Your task to perform on an android device: turn on improve location accuracy Image 0: 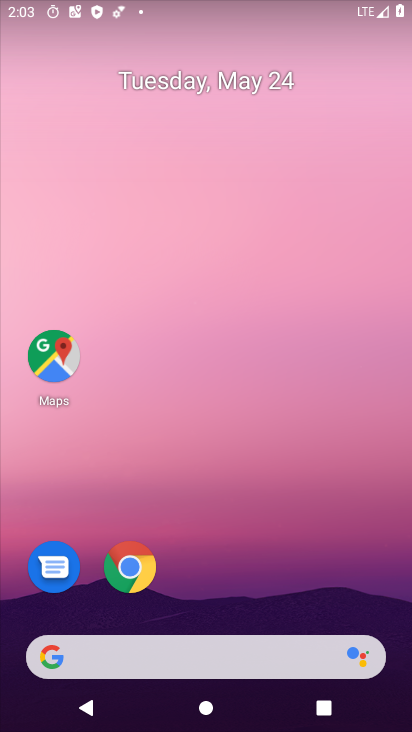
Step 0: drag from (215, 534) to (318, 6)
Your task to perform on an android device: turn on improve location accuracy Image 1: 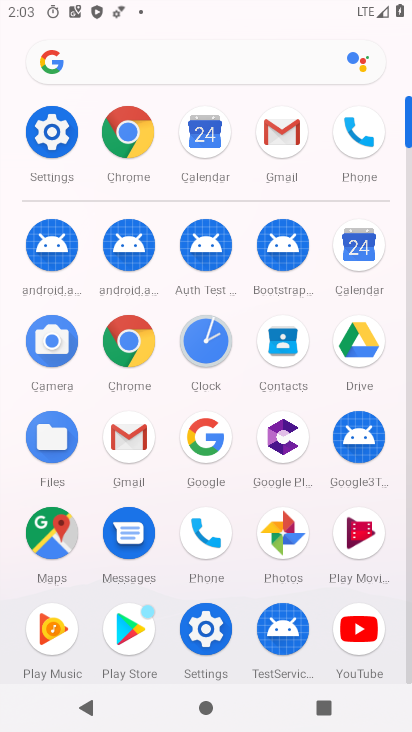
Step 1: click (200, 634)
Your task to perform on an android device: turn on improve location accuracy Image 2: 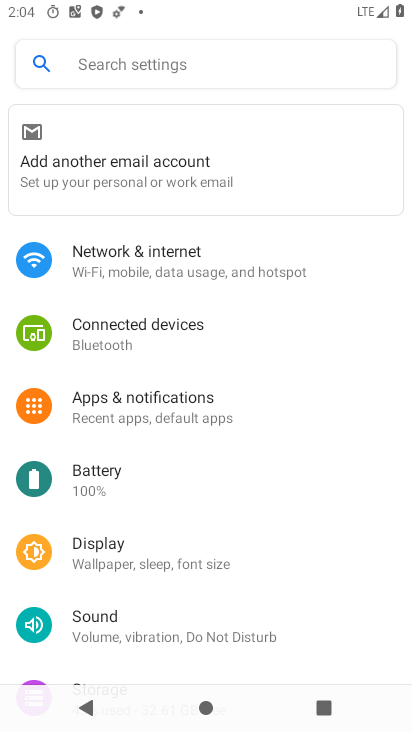
Step 2: drag from (163, 585) to (235, 329)
Your task to perform on an android device: turn on improve location accuracy Image 3: 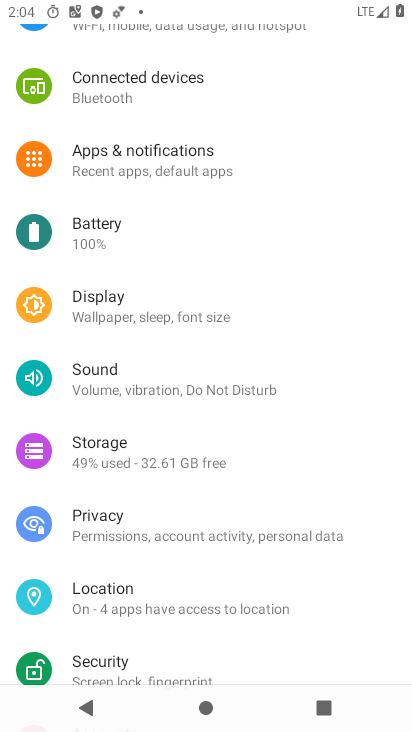
Step 3: click (151, 604)
Your task to perform on an android device: turn on improve location accuracy Image 4: 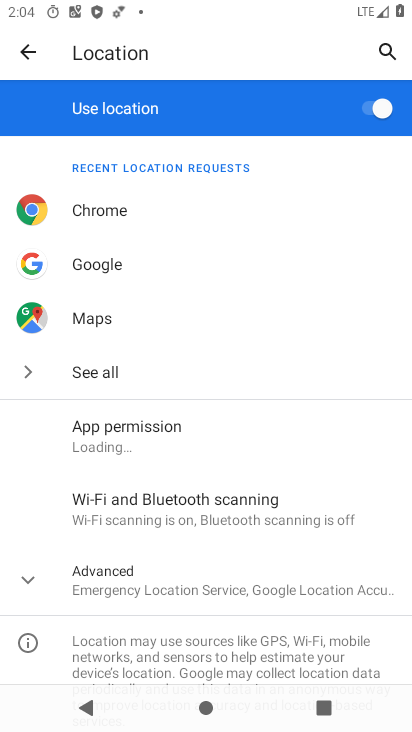
Step 4: click (219, 592)
Your task to perform on an android device: turn on improve location accuracy Image 5: 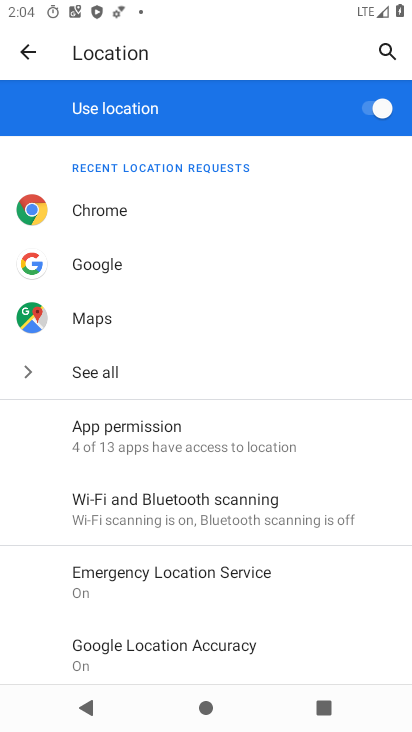
Step 5: drag from (207, 627) to (240, 409)
Your task to perform on an android device: turn on improve location accuracy Image 6: 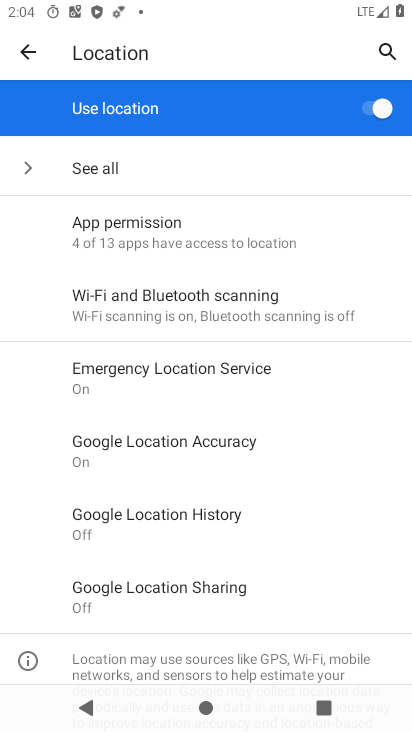
Step 6: click (192, 453)
Your task to perform on an android device: turn on improve location accuracy Image 7: 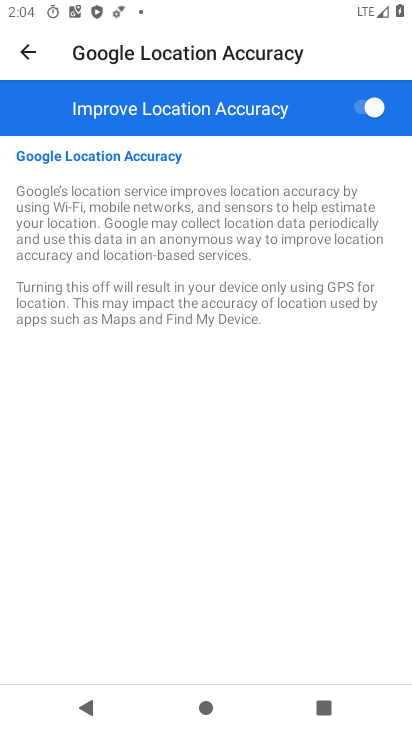
Step 7: task complete